Your task to perform on an android device: Open calendar and show me the first week of next month Image 0: 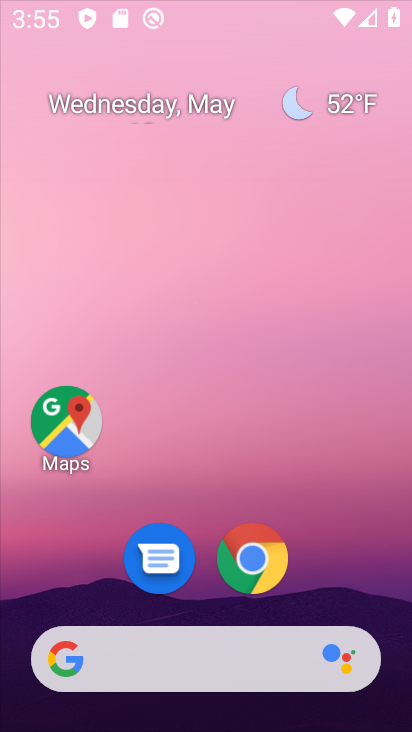
Step 0: drag from (330, 528) to (337, 170)
Your task to perform on an android device: Open calendar and show me the first week of next month Image 1: 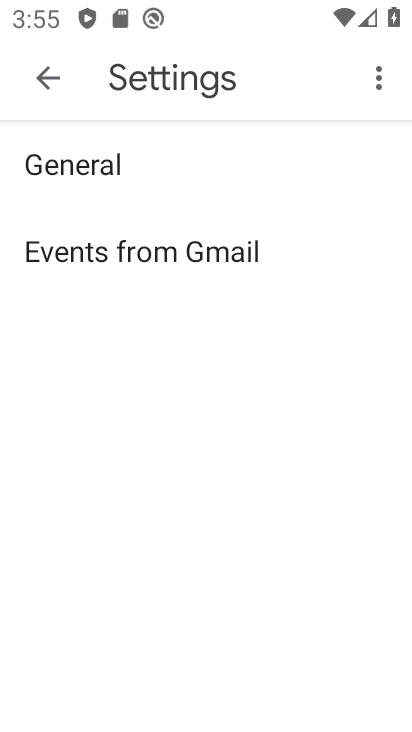
Step 1: press home button
Your task to perform on an android device: Open calendar and show me the first week of next month Image 2: 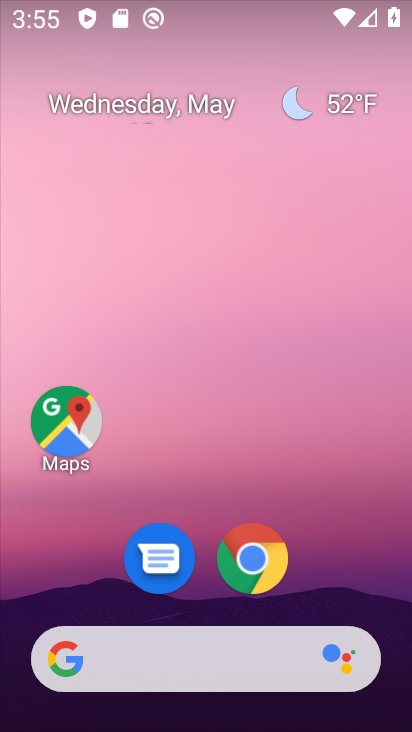
Step 2: drag from (317, 513) to (330, 145)
Your task to perform on an android device: Open calendar and show me the first week of next month Image 3: 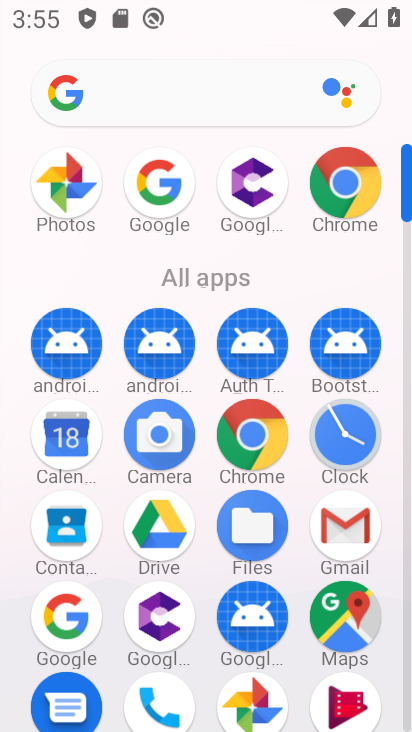
Step 3: click (67, 458)
Your task to perform on an android device: Open calendar and show me the first week of next month Image 4: 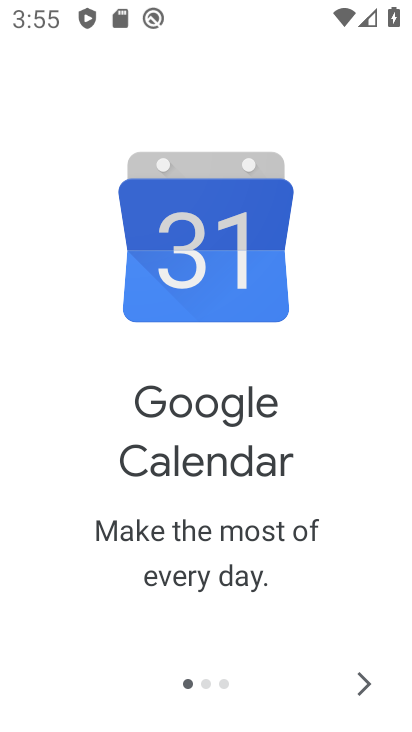
Step 4: click (347, 686)
Your task to perform on an android device: Open calendar and show me the first week of next month Image 5: 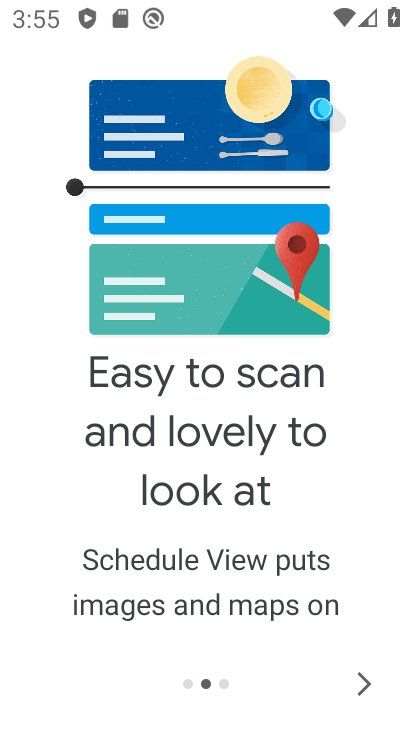
Step 5: click (352, 686)
Your task to perform on an android device: Open calendar and show me the first week of next month Image 6: 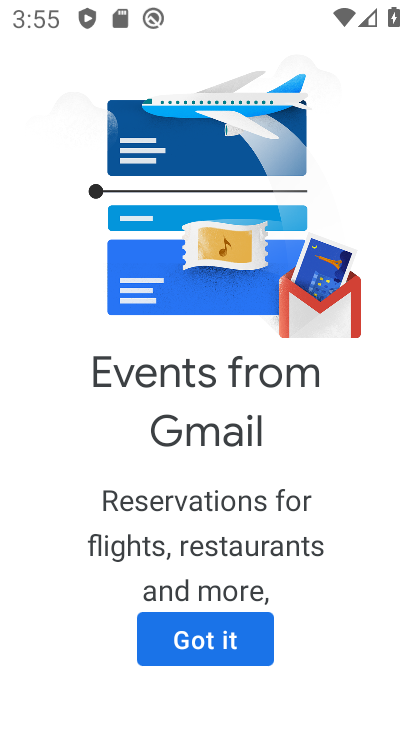
Step 6: click (224, 646)
Your task to perform on an android device: Open calendar and show me the first week of next month Image 7: 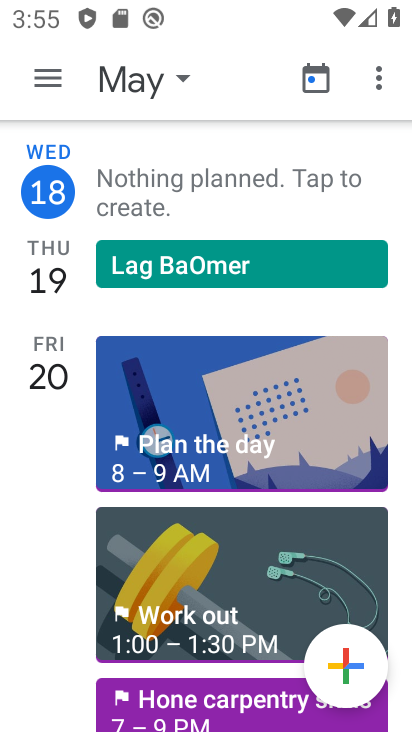
Step 7: click (126, 97)
Your task to perform on an android device: Open calendar and show me the first week of next month Image 8: 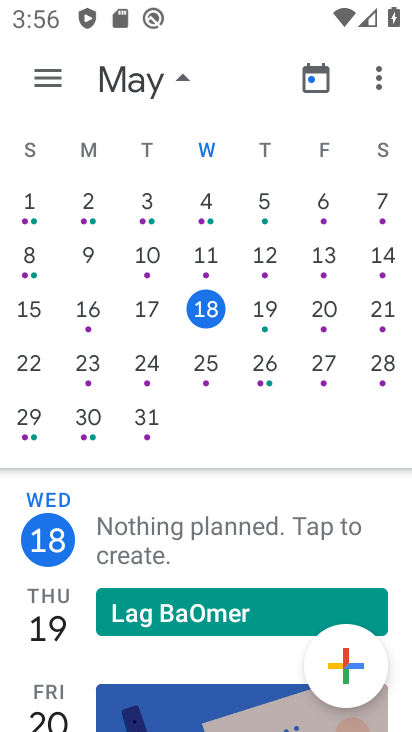
Step 8: drag from (354, 377) to (2, 338)
Your task to perform on an android device: Open calendar and show me the first week of next month Image 9: 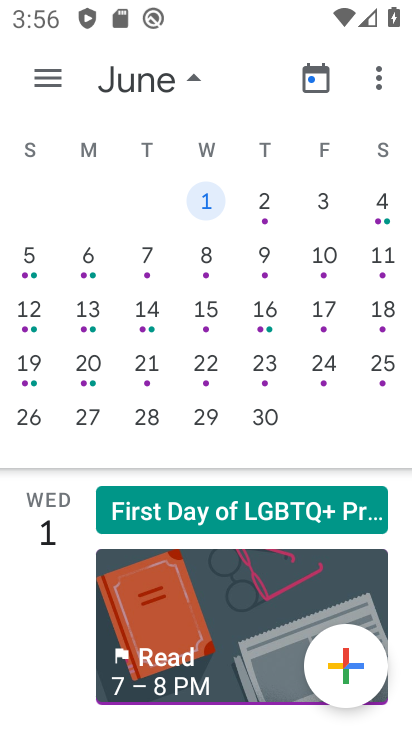
Step 9: click (268, 211)
Your task to perform on an android device: Open calendar and show me the first week of next month Image 10: 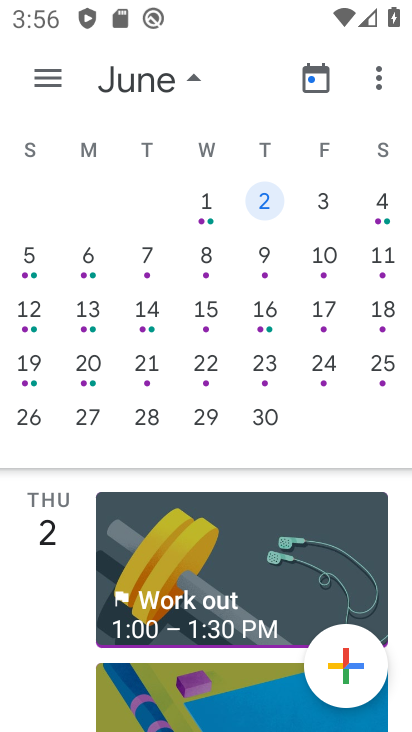
Step 10: click (328, 204)
Your task to perform on an android device: Open calendar and show me the first week of next month Image 11: 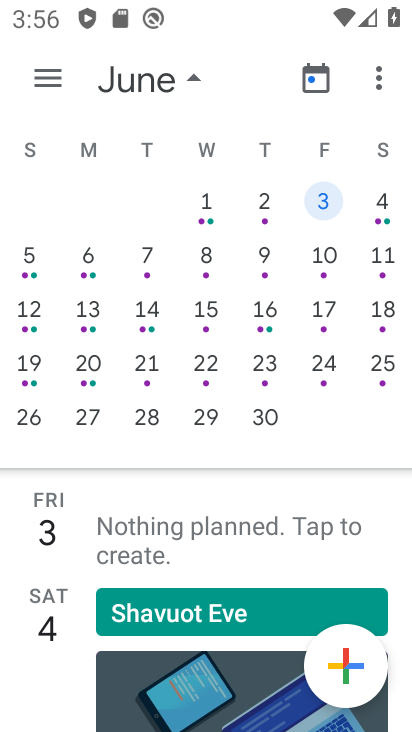
Step 11: click (381, 212)
Your task to perform on an android device: Open calendar and show me the first week of next month Image 12: 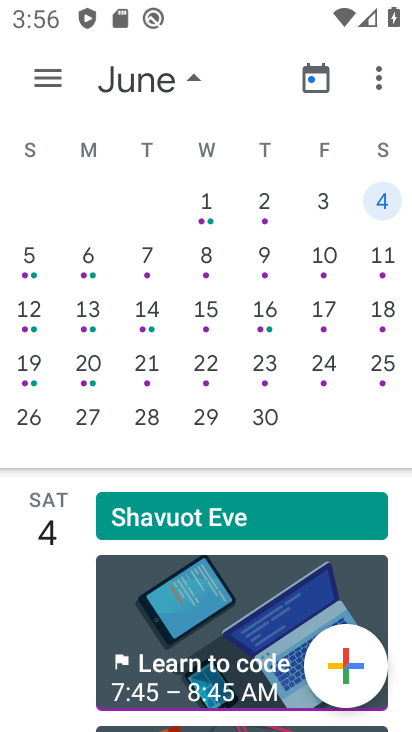
Step 12: task complete